Your task to perform on an android device: Open the map Image 0: 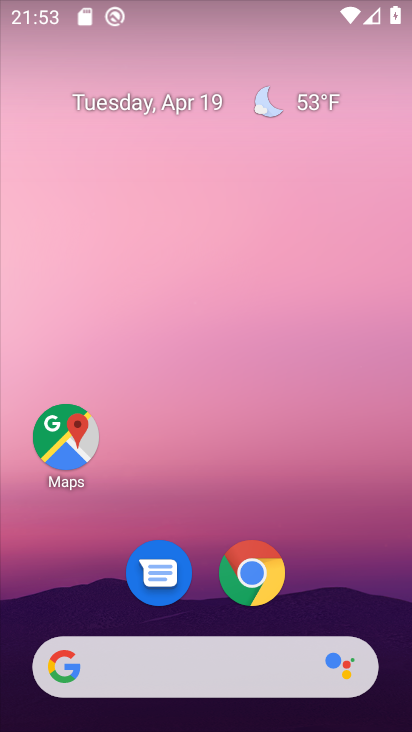
Step 0: click (65, 433)
Your task to perform on an android device: Open the map Image 1: 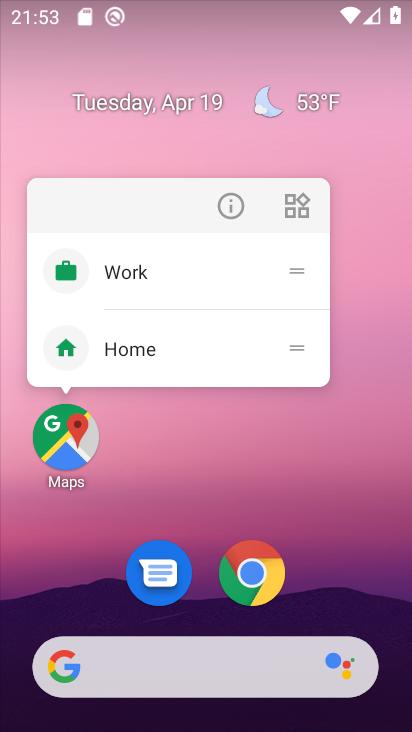
Step 1: click (62, 431)
Your task to perform on an android device: Open the map Image 2: 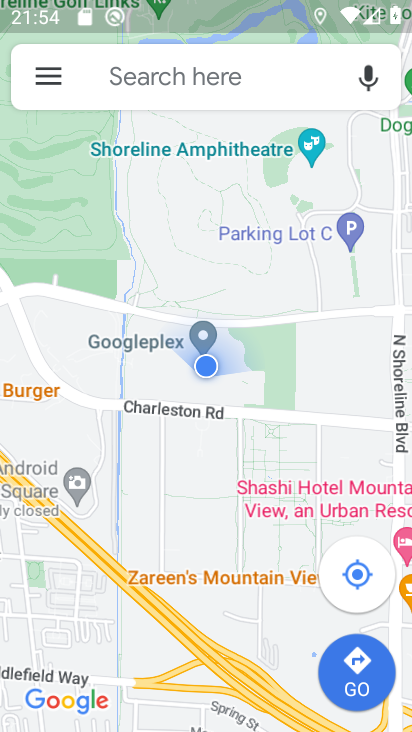
Step 2: click (45, 78)
Your task to perform on an android device: Open the map Image 3: 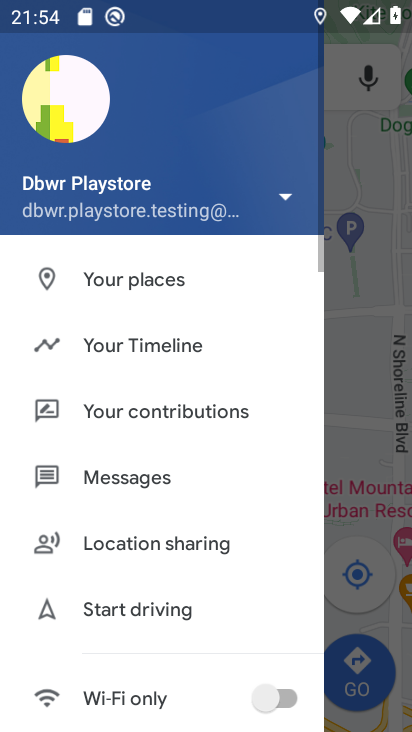
Step 3: task complete